Your task to perform on an android device: toggle translation in the chrome app Image 0: 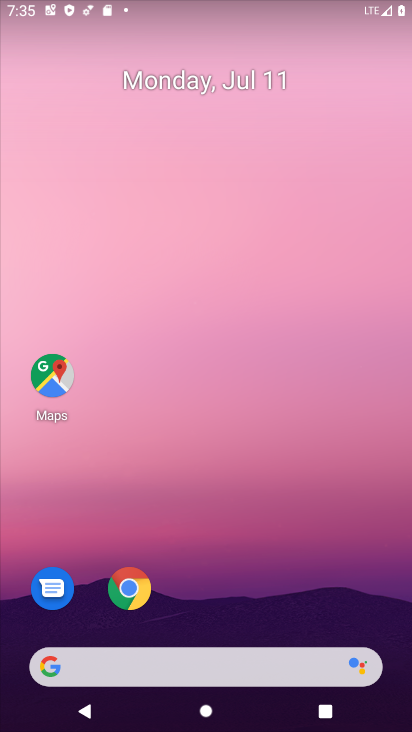
Step 0: drag from (383, 653) to (240, 127)
Your task to perform on an android device: toggle translation in the chrome app Image 1: 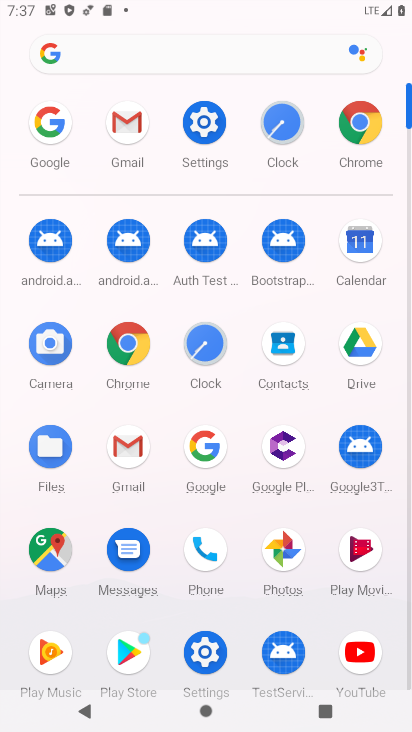
Step 1: click (111, 354)
Your task to perform on an android device: toggle translation in the chrome app Image 2: 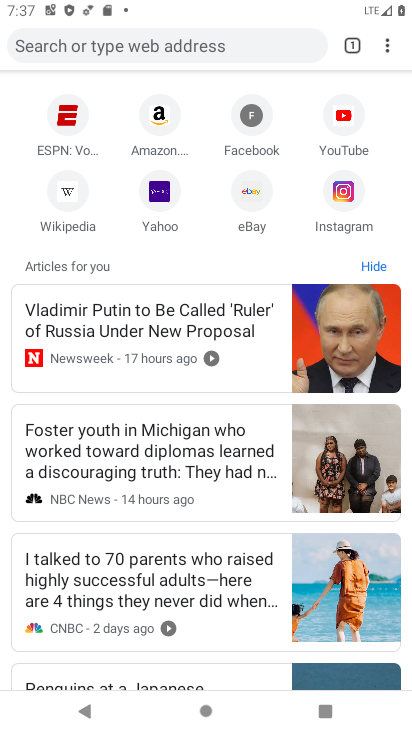
Step 2: click (390, 37)
Your task to perform on an android device: toggle translation in the chrome app Image 3: 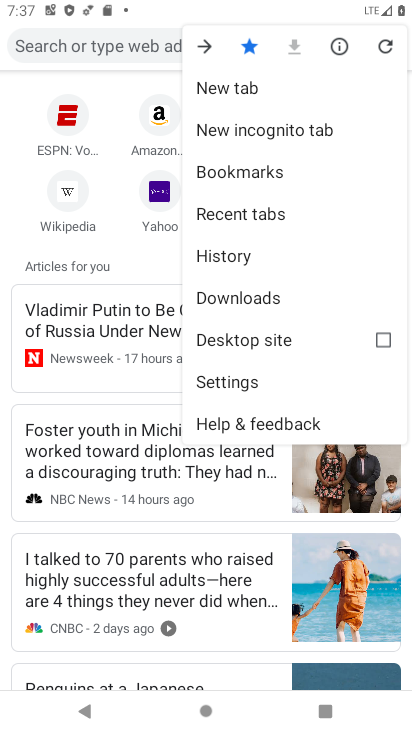
Step 3: click (231, 381)
Your task to perform on an android device: toggle translation in the chrome app Image 4: 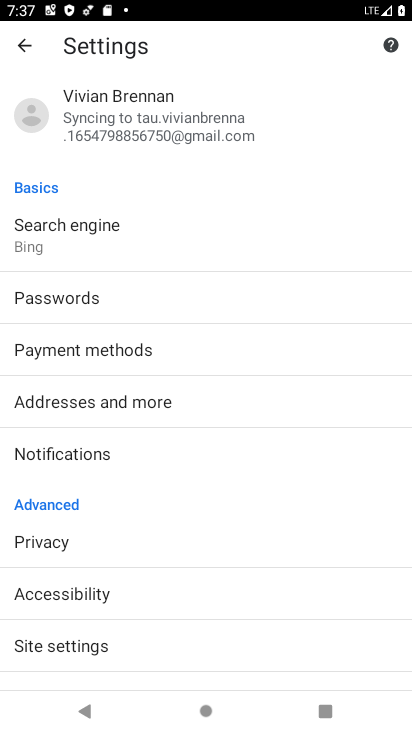
Step 4: drag from (132, 622) to (130, 193)
Your task to perform on an android device: toggle translation in the chrome app Image 5: 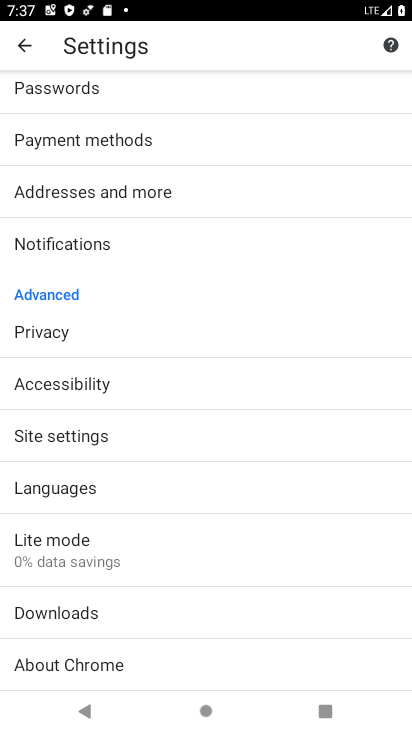
Step 5: click (107, 497)
Your task to perform on an android device: toggle translation in the chrome app Image 6: 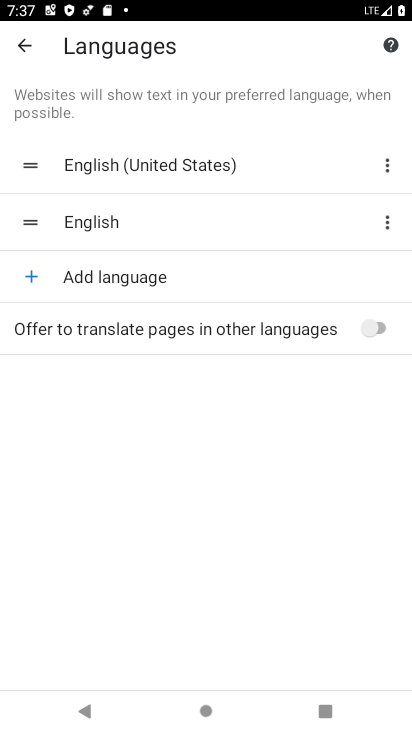
Step 6: click (363, 334)
Your task to perform on an android device: toggle translation in the chrome app Image 7: 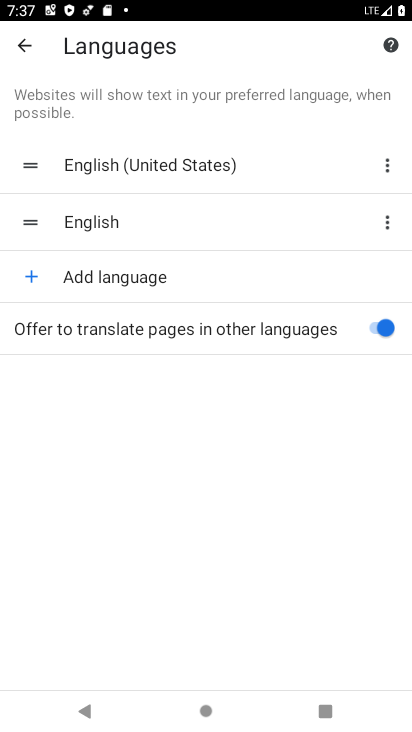
Step 7: task complete